Your task to perform on an android device: Search for the best 4K TV Image 0: 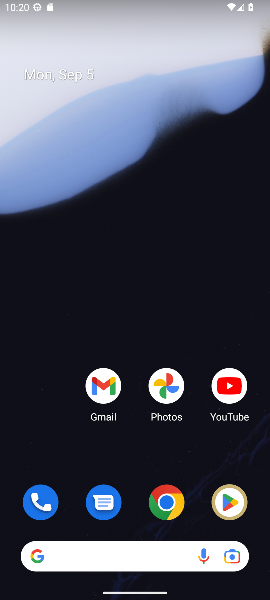
Step 0: drag from (256, 374) to (193, 13)
Your task to perform on an android device: Search for the best 4K TV Image 1: 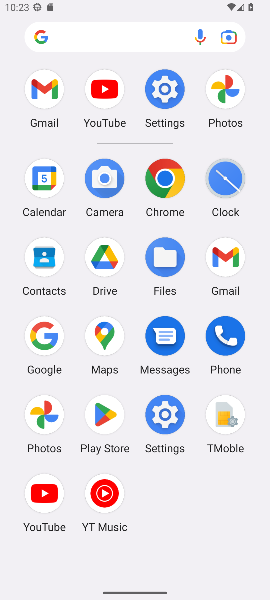
Step 1: click (51, 336)
Your task to perform on an android device: Search for the best 4K TV Image 2: 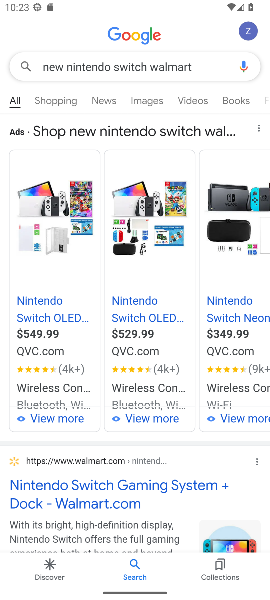
Step 2: press back button
Your task to perform on an android device: Search for the best 4K TV Image 3: 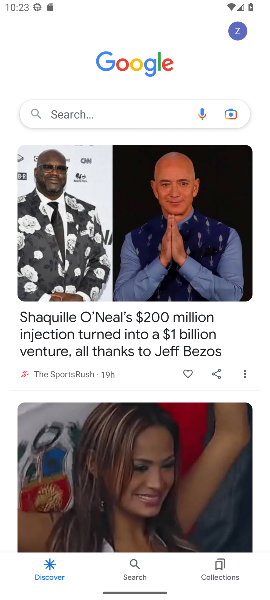
Step 3: click (69, 105)
Your task to perform on an android device: Search for the best 4K TV Image 4: 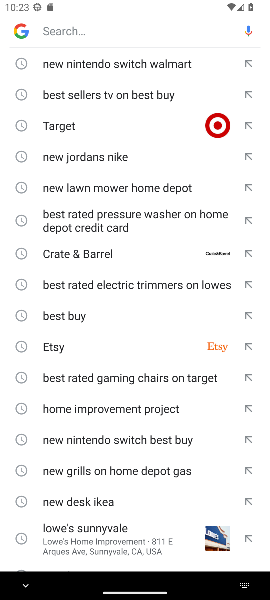
Step 4: type "best 4K TV"
Your task to perform on an android device: Search for the best 4K TV Image 5: 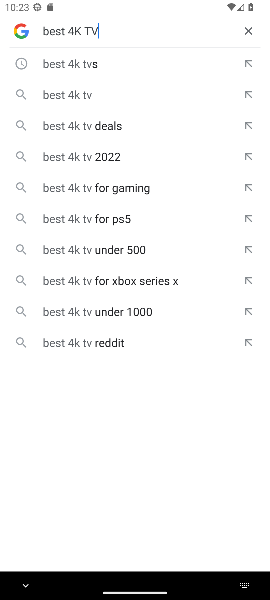
Step 5: click (74, 60)
Your task to perform on an android device: Search for the best 4K TV Image 6: 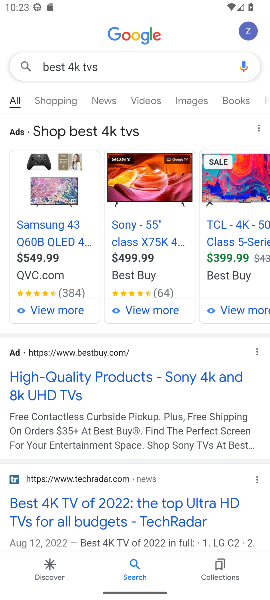
Step 6: task complete